Your task to perform on an android device: Open ESPN.com Image 0: 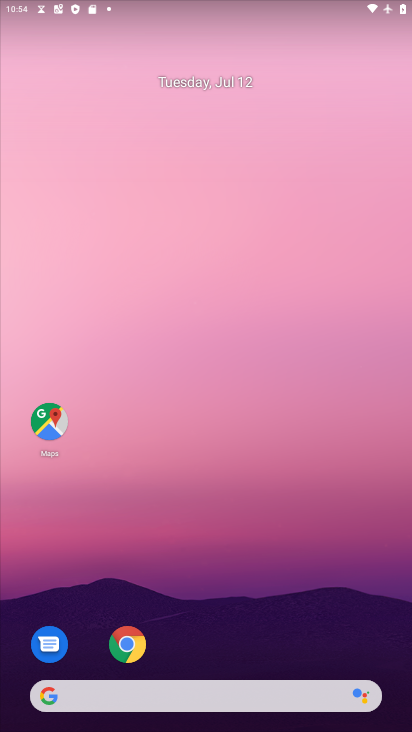
Step 0: drag from (250, 587) to (154, 9)
Your task to perform on an android device: Open ESPN.com Image 1: 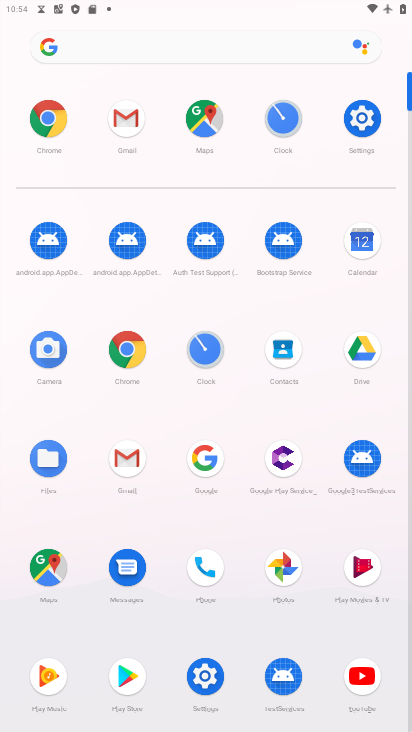
Step 1: click (38, 118)
Your task to perform on an android device: Open ESPN.com Image 2: 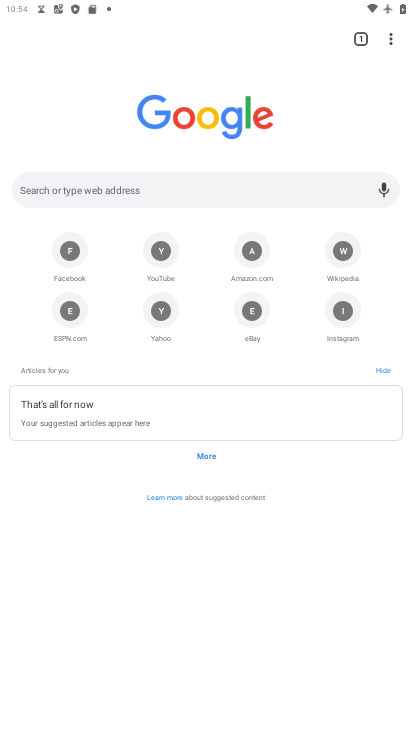
Step 2: click (76, 325)
Your task to perform on an android device: Open ESPN.com Image 3: 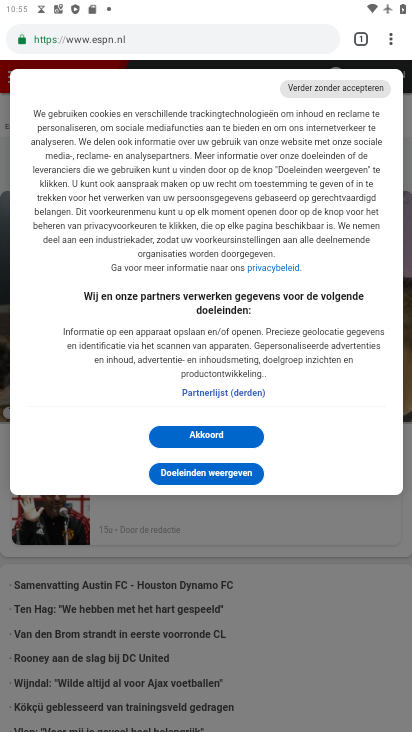
Step 3: task complete